Your task to perform on an android device: turn off notifications in google photos Image 0: 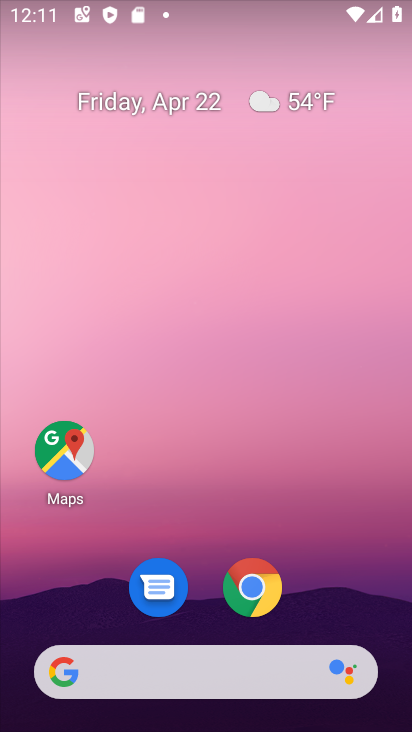
Step 0: drag from (359, 615) to (383, 33)
Your task to perform on an android device: turn off notifications in google photos Image 1: 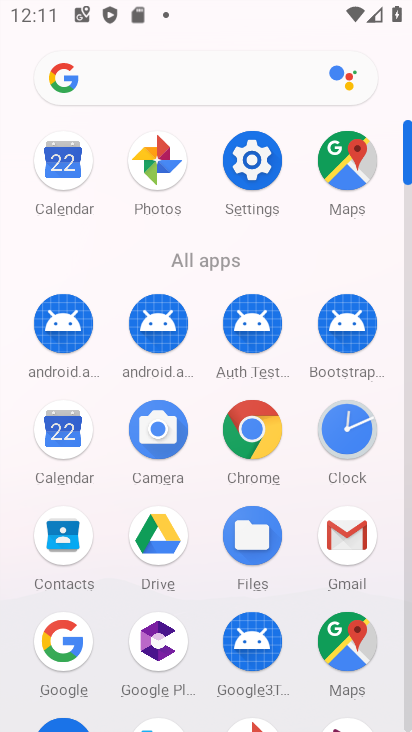
Step 1: click (159, 177)
Your task to perform on an android device: turn off notifications in google photos Image 2: 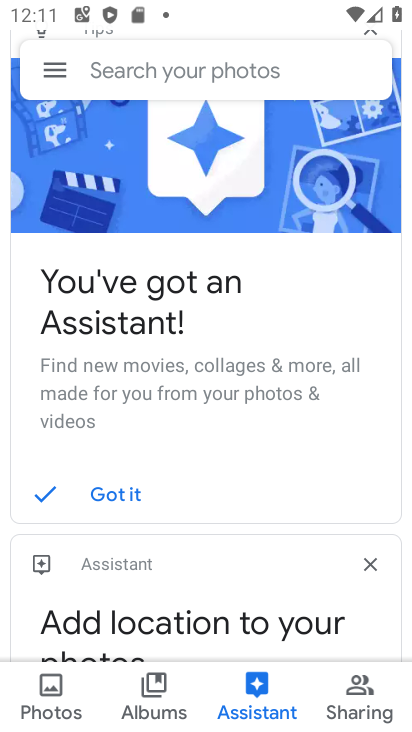
Step 2: click (53, 72)
Your task to perform on an android device: turn off notifications in google photos Image 3: 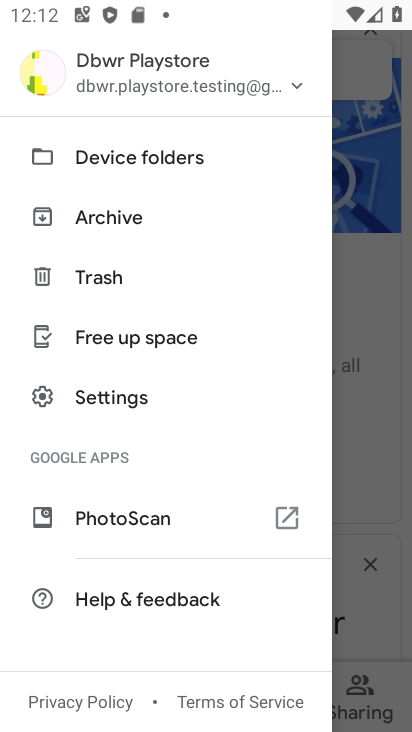
Step 3: click (115, 400)
Your task to perform on an android device: turn off notifications in google photos Image 4: 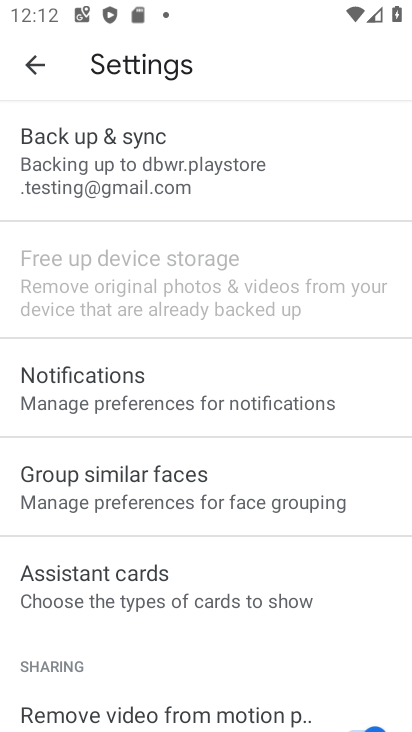
Step 4: click (123, 391)
Your task to perform on an android device: turn off notifications in google photos Image 5: 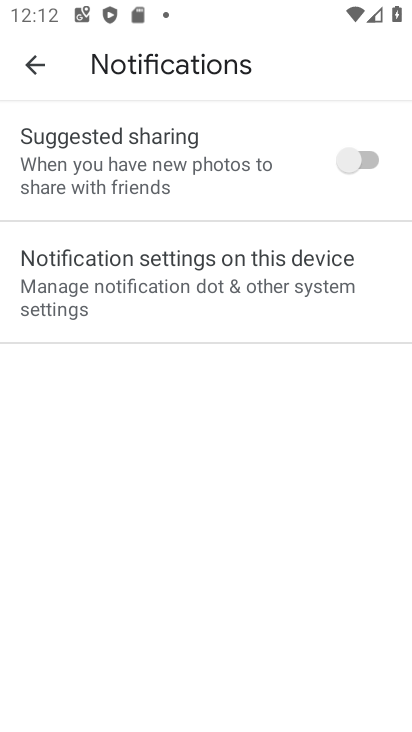
Step 5: click (123, 269)
Your task to perform on an android device: turn off notifications in google photos Image 6: 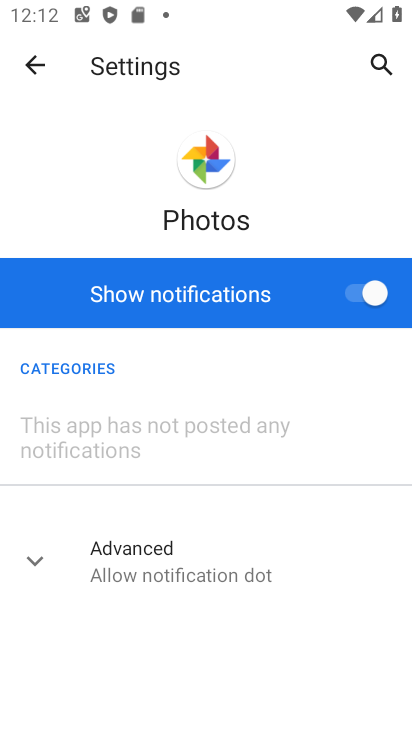
Step 6: click (368, 305)
Your task to perform on an android device: turn off notifications in google photos Image 7: 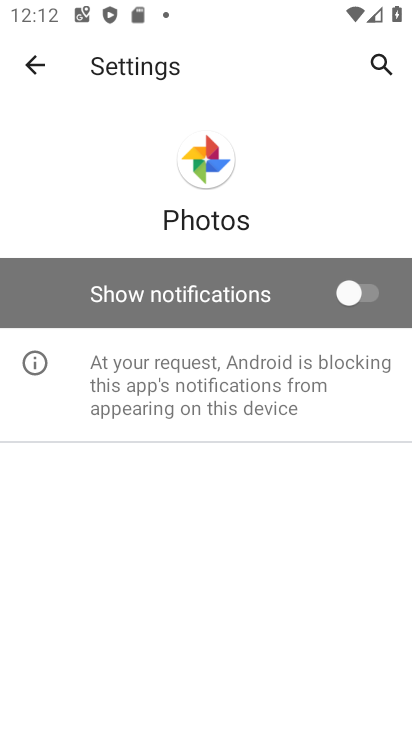
Step 7: task complete